Your task to perform on an android device: Open calendar and show me the second week of next month Image 0: 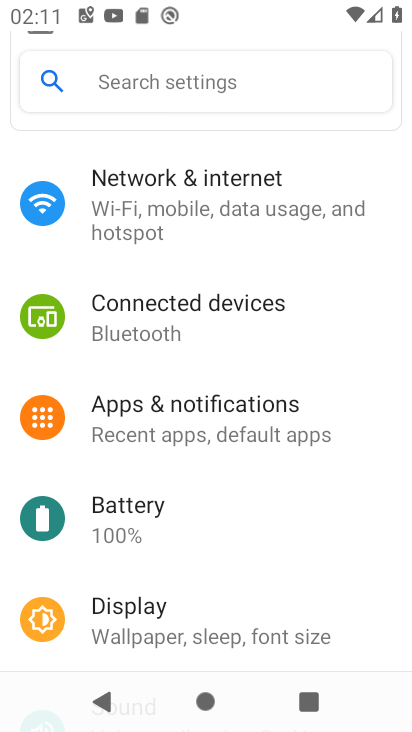
Step 0: press home button
Your task to perform on an android device: Open calendar and show me the second week of next month Image 1: 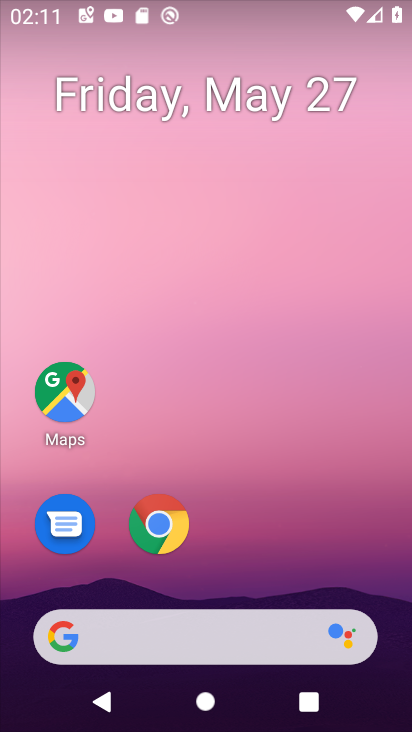
Step 1: drag from (247, 550) to (210, 45)
Your task to perform on an android device: Open calendar and show me the second week of next month Image 2: 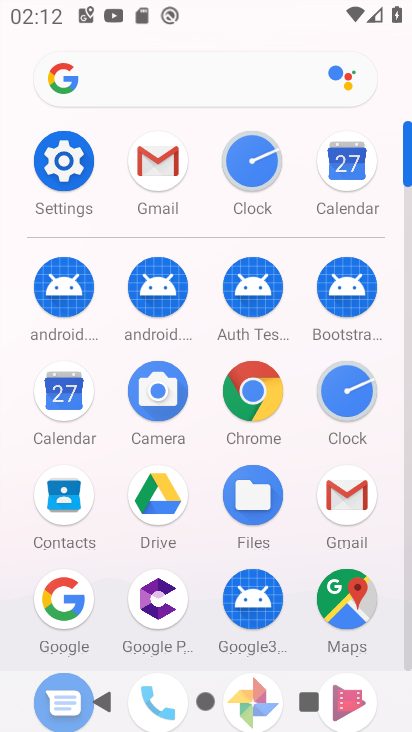
Step 2: click (351, 163)
Your task to perform on an android device: Open calendar and show me the second week of next month Image 3: 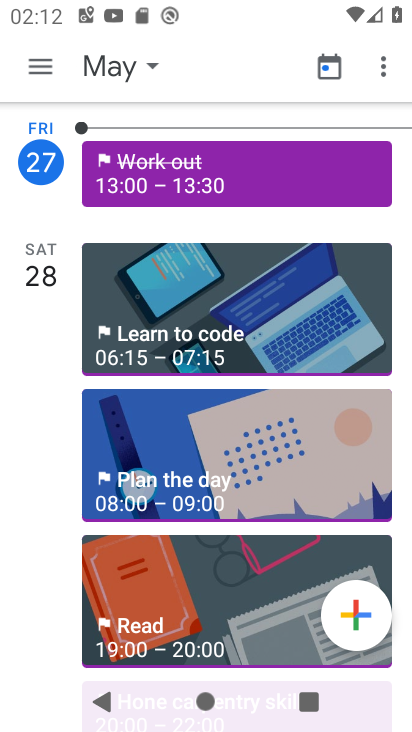
Step 3: click (41, 64)
Your task to perform on an android device: Open calendar and show me the second week of next month Image 4: 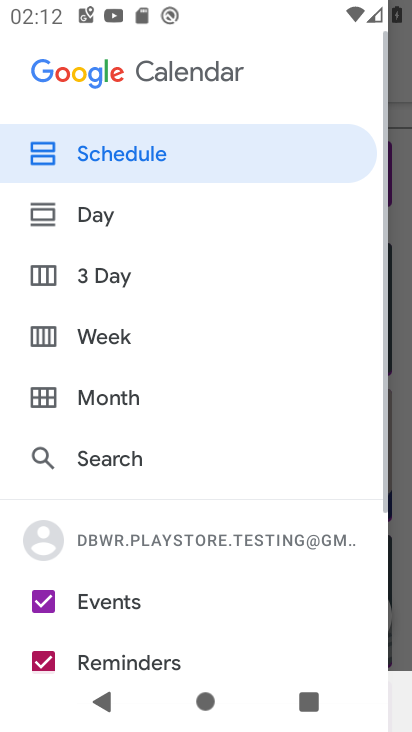
Step 4: click (44, 325)
Your task to perform on an android device: Open calendar and show me the second week of next month Image 5: 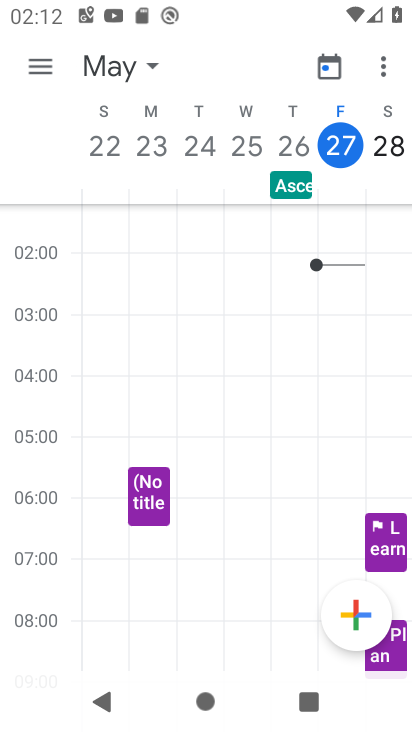
Step 5: task complete